Your task to perform on an android device: turn on wifi Image 0: 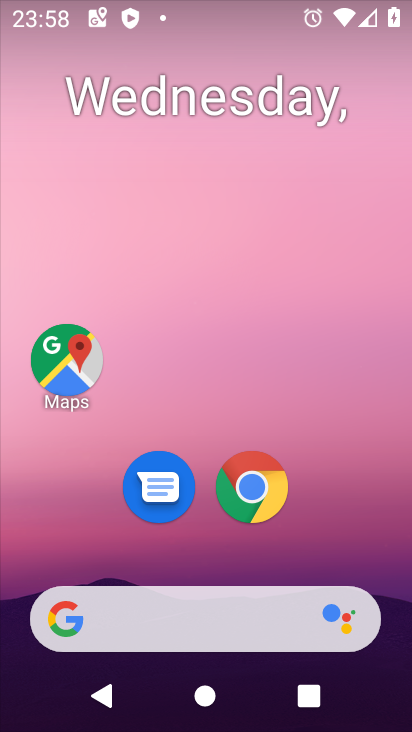
Step 0: drag from (341, 490) to (400, 20)
Your task to perform on an android device: turn on wifi Image 1: 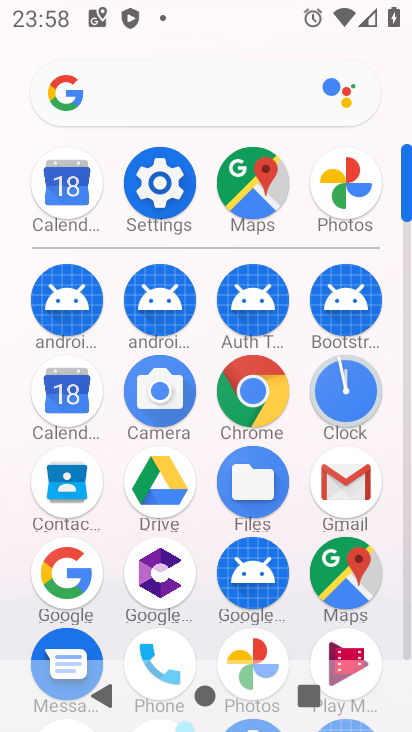
Step 1: click (148, 184)
Your task to perform on an android device: turn on wifi Image 2: 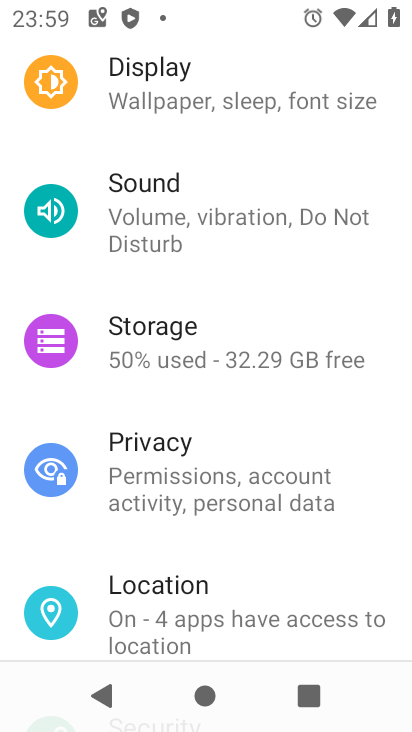
Step 2: drag from (348, 185) to (351, 494)
Your task to perform on an android device: turn on wifi Image 3: 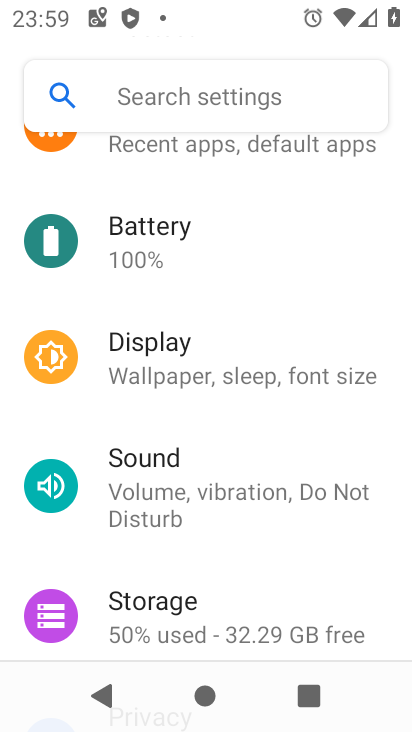
Step 3: drag from (315, 253) to (318, 563)
Your task to perform on an android device: turn on wifi Image 4: 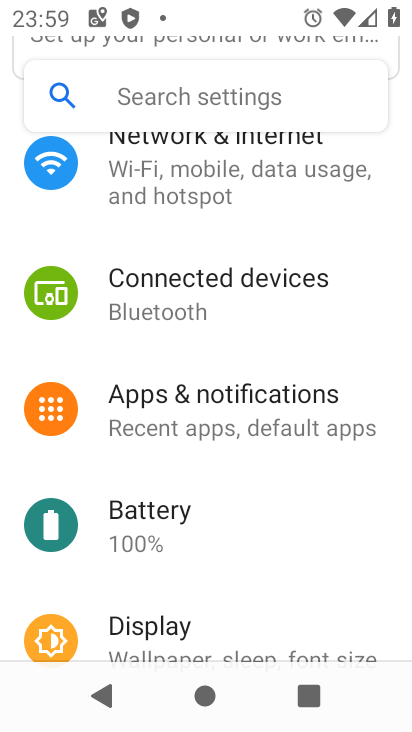
Step 4: drag from (315, 193) to (322, 514)
Your task to perform on an android device: turn on wifi Image 5: 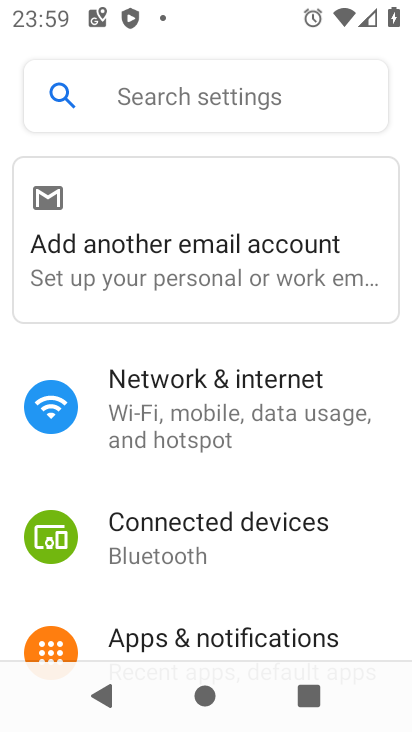
Step 5: click (187, 417)
Your task to perform on an android device: turn on wifi Image 6: 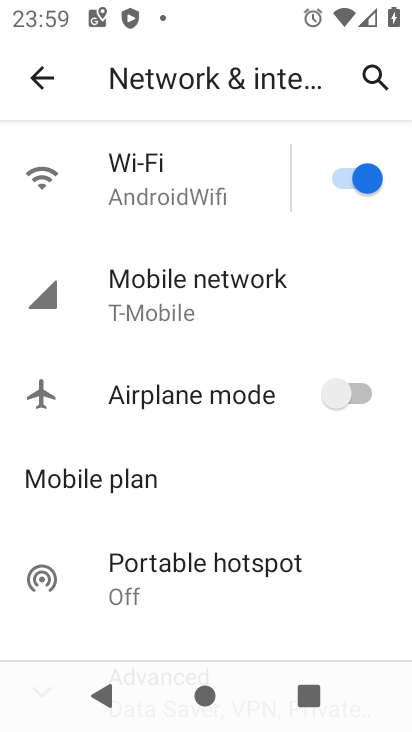
Step 6: task complete